Your task to perform on an android device: Turn off the flashlight Image 0: 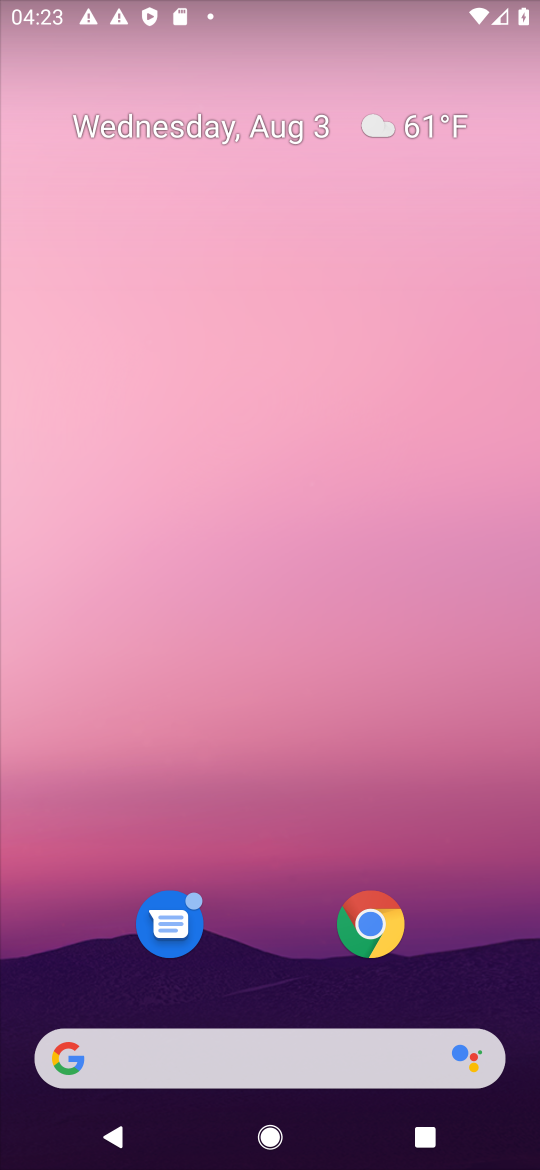
Step 0: drag from (252, 983) to (252, 270)
Your task to perform on an android device: Turn off the flashlight Image 1: 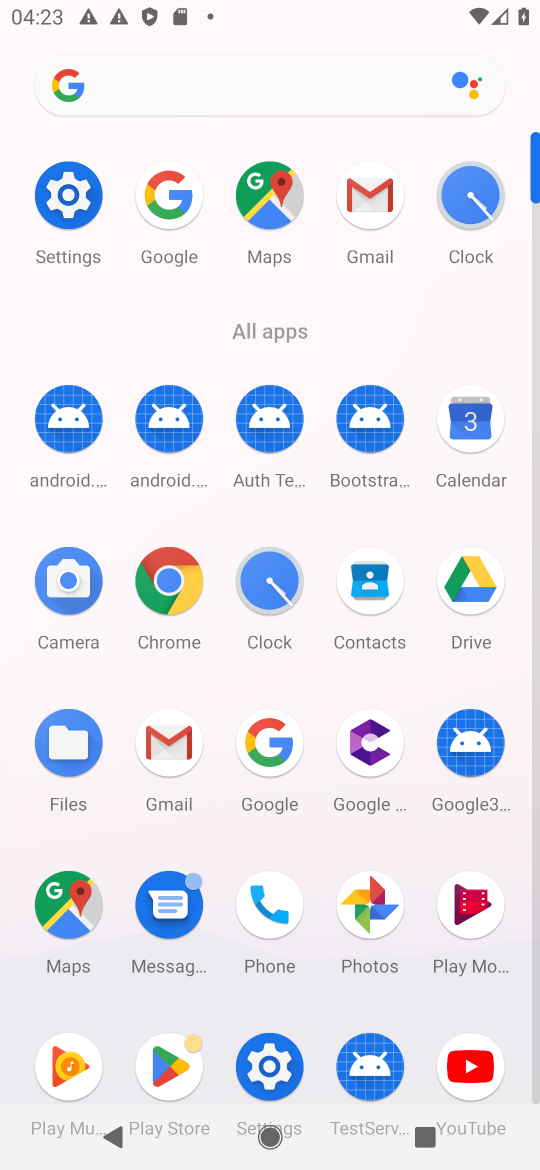
Step 1: click (54, 226)
Your task to perform on an android device: Turn off the flashlight Image 2: 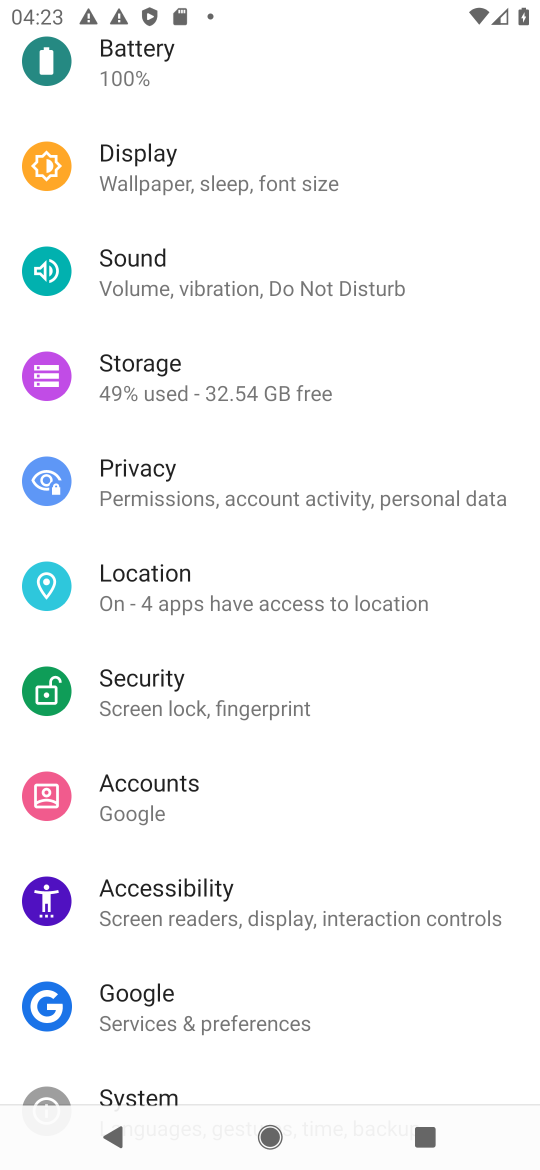
Step 2: task complete